Your task to perform on an android device: allow cookies in the chrome app Image 0: 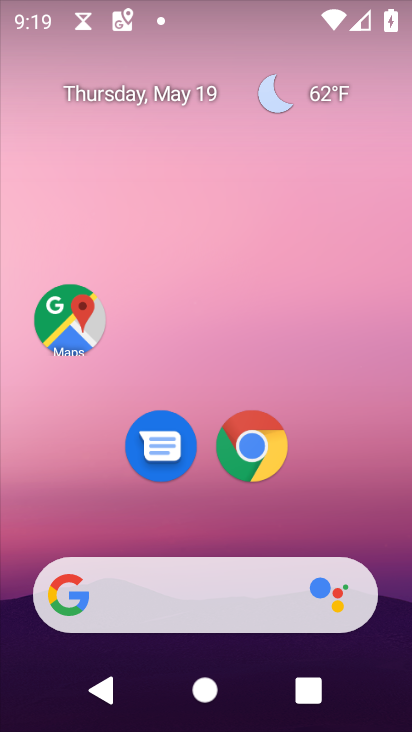
Step 0: click (244, 443)
Your task to perform on an android device: allow cookies in the chrome app Image 1: 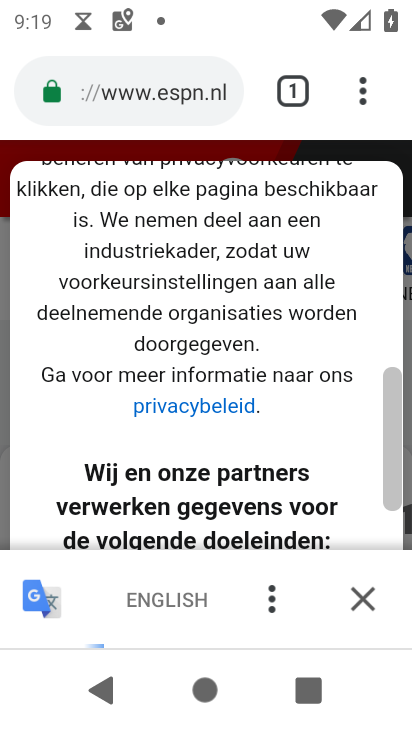
Step 1: click (355, 88)
Your task to perform on an android device: allow cookies in the chrome app Image 2: 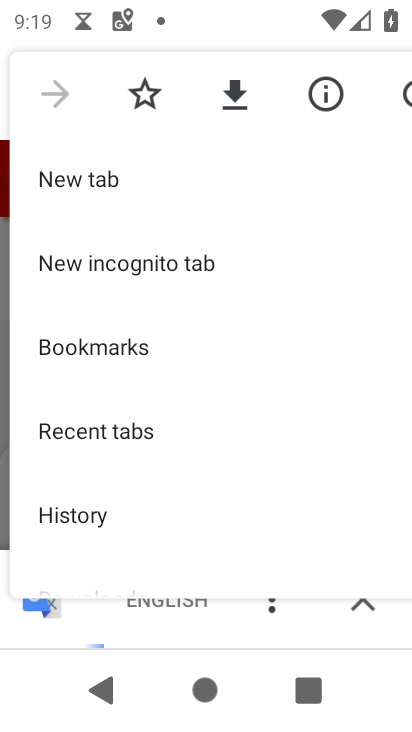
Step 2: drag from (132, 504) to (97, 275)
Your task to perform on an android device: allow cookies in the chrome app Image 3: 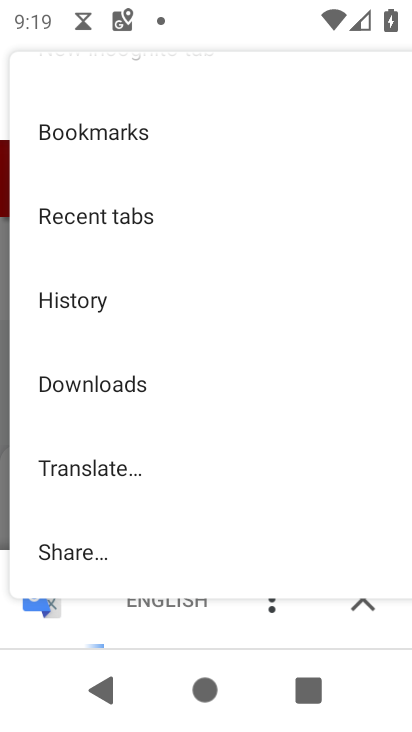
Step 3: drag from (97, 518) to (138, 294)
Your task to perform on an android device: allow cookies in the chrome app Image 4: 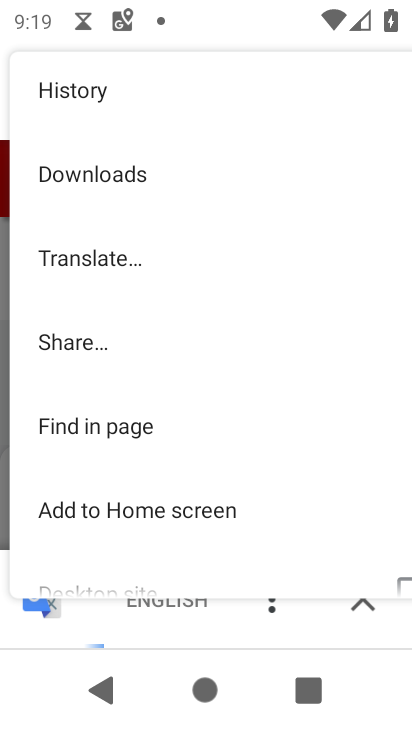
Step 4: drag from (124, 528) to (114, 221)
Your task to perform on an android device: allow cookies in the chrome app Image 5: 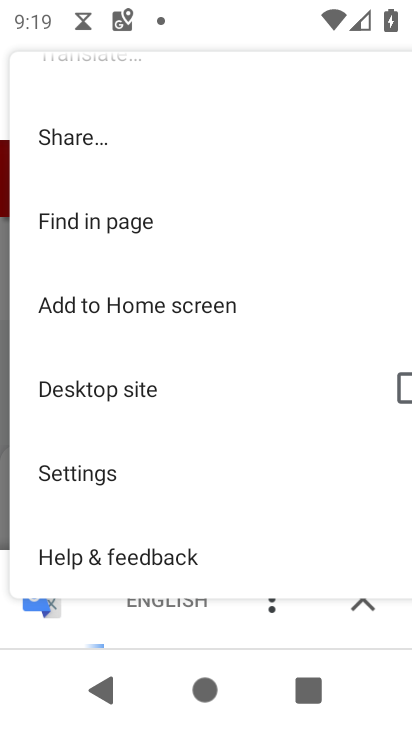
Step 5: click (82, 476)
Your task to perform on an android device: allow cookies in the chrome app Image 6: 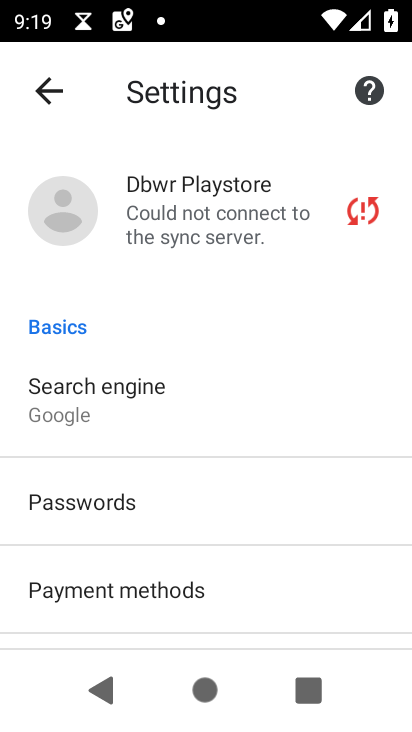
Step 6: drag from (86, 587) to (93, 301)
Your task to perform on an android device: allow cookies in the chrome app Image 7: 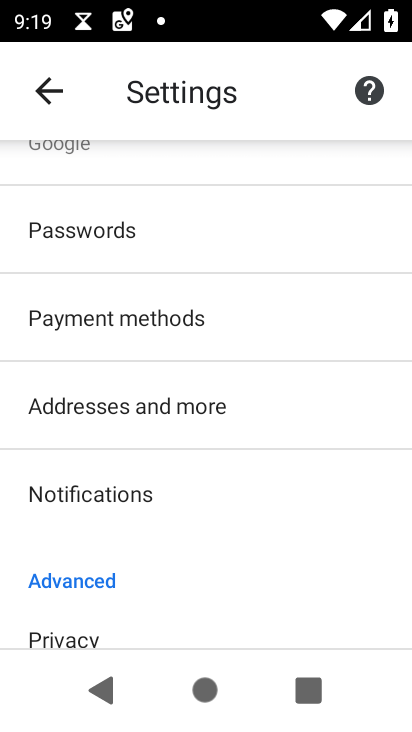
Step 7: drag from (104, 601) to (119, 385)
Your task to perform on an android device: allow cookies in the chrome app Image 8: 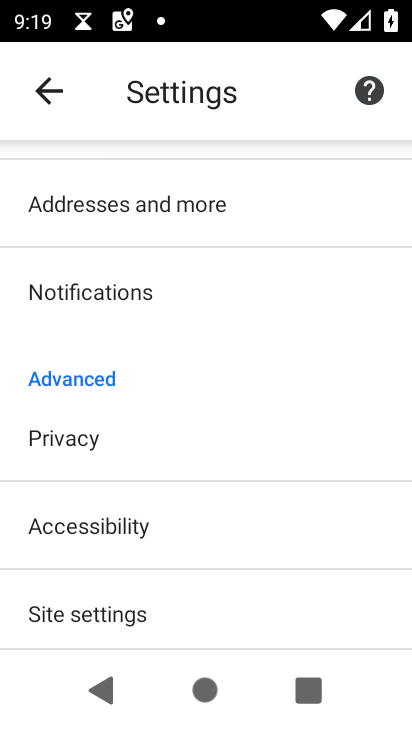
Step 8: click (135, 615)
Your task to perform on an android device: allow cookies in the chrome app Image 9: 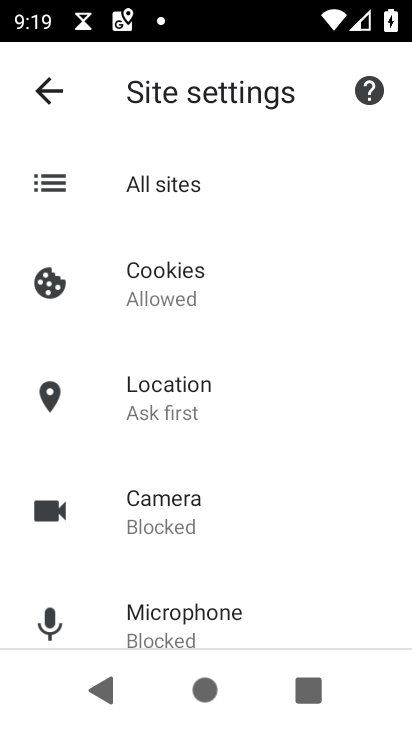
Step 9: click (232, 293)
Your task to perform on an android device: allow cookies in the chrome app Image 10: 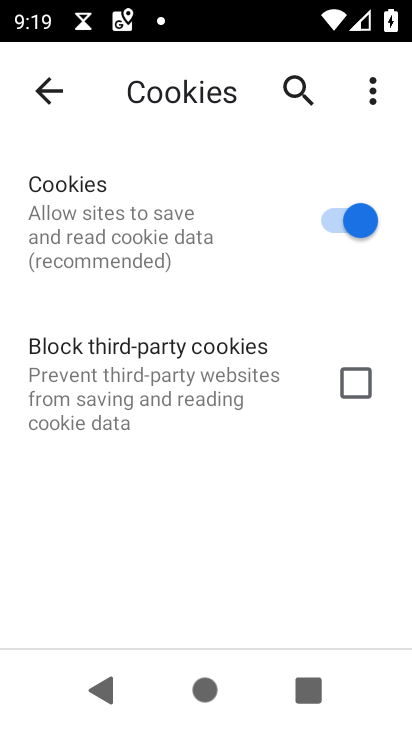
Step 10: task complete